Your task to perform on an android device: Go to display settings Image 0: 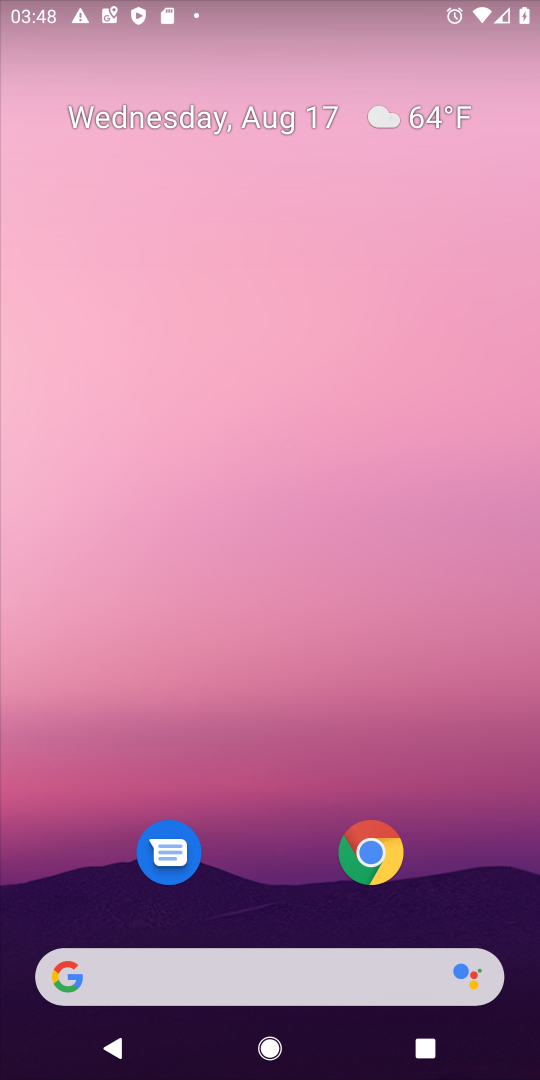
Step 0: drag from (227, 806) to (267, 16)
Your task to perform on an android device: Go to display settings Image 1: 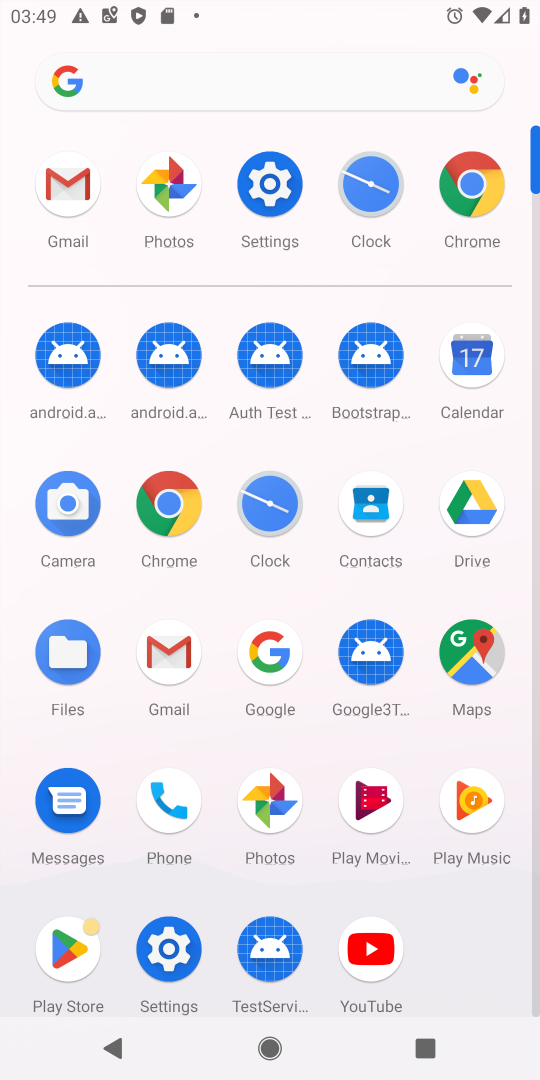
Step 1: click (269, 184)
Your task to perform on an android device: Go to display settings Image 2: 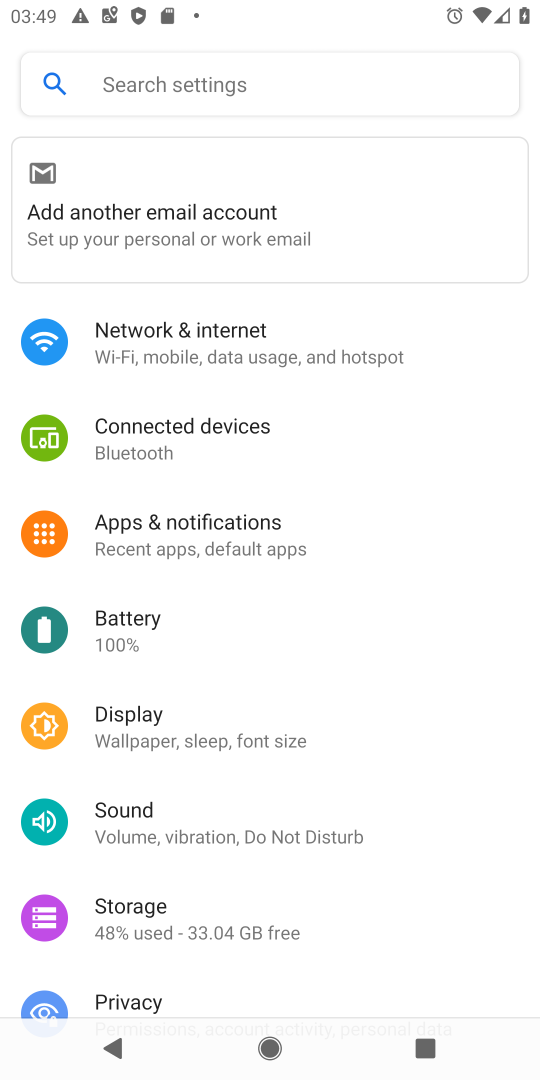
Step 2: click (110, 733)
Your task to perform on an android device: Go to display settings Image 3: 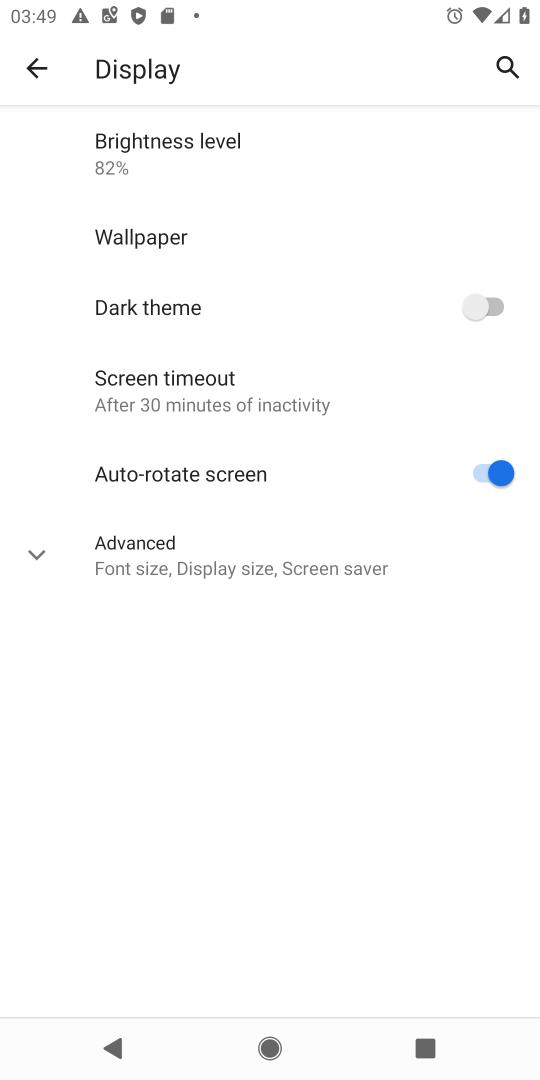
Step 3: task complete